Your task to perform on an android device: turn on the 24-hour format for clock Image 0: 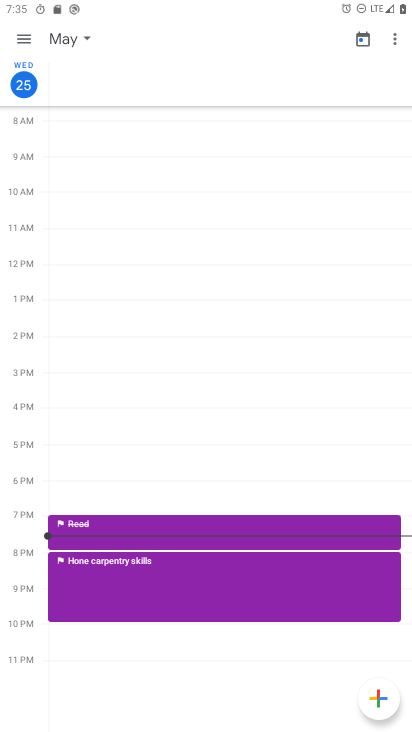
Step 0: press home button
Your task to perform on an android device: turn on the 24-hour format for clock Image 1: 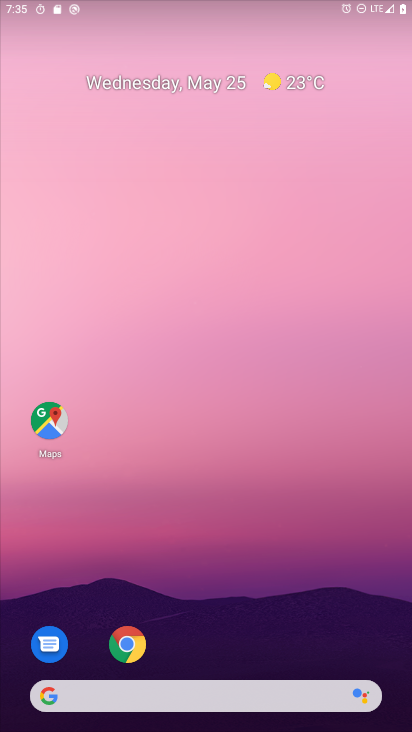
Step 1: drag from (377, 640) to (260, 18)
Your task to perform on an android device: turn on the 24-hour format for clock Image 2: 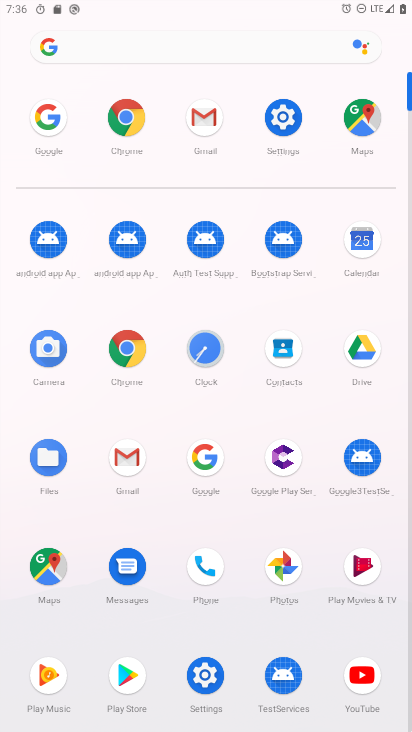
Step 2: click (217, 353)
Your task to perform on an android device: turn on the 24-hour format for clock Image 3: 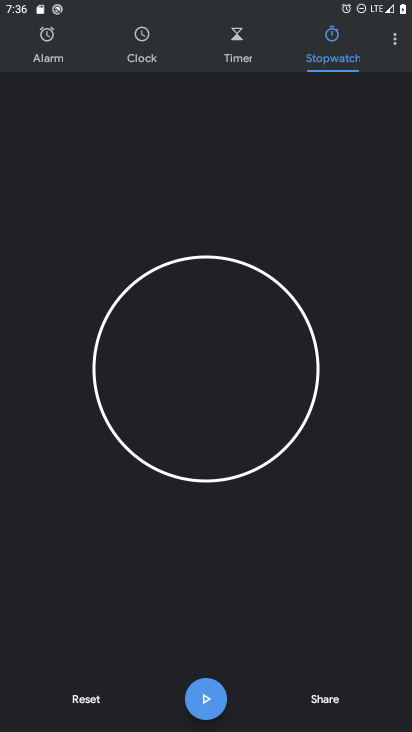
Step 3: click (389, 36)
Your task to perform on an android device: turn on the 24-hour format for clock Image 4: 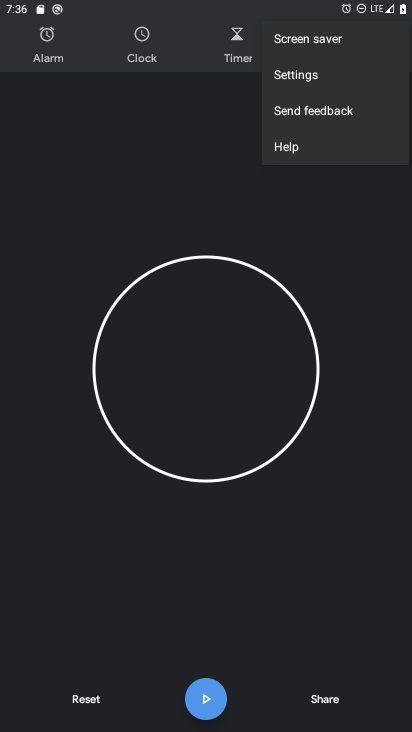
Step 4: click (321, 73)
Your task to perform on an android device: turn on the 24-hour format for clock Image 5: 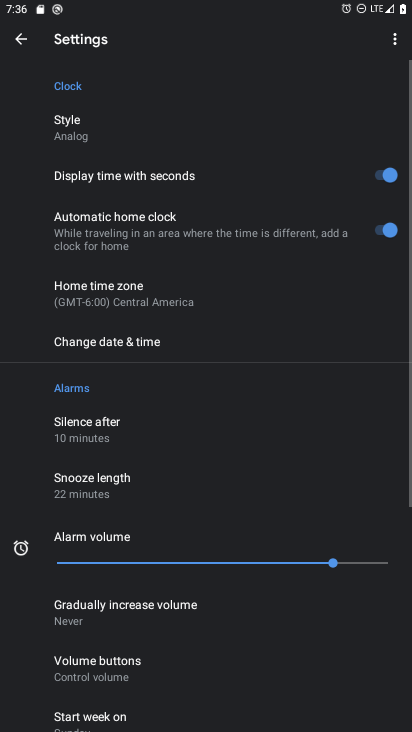
Step 5: click (194, 345)
Your task to perform on an android device: turn on the 24-hour format for clock Image 6: 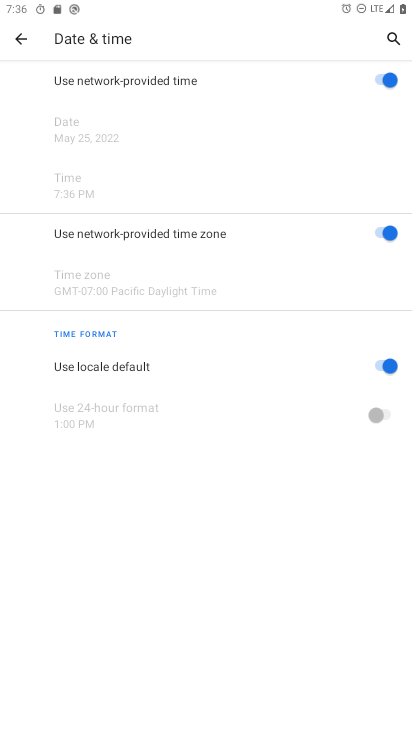
Step 6: task complete